Your task to perform on an android device: open chrome privacy settings Image 0: 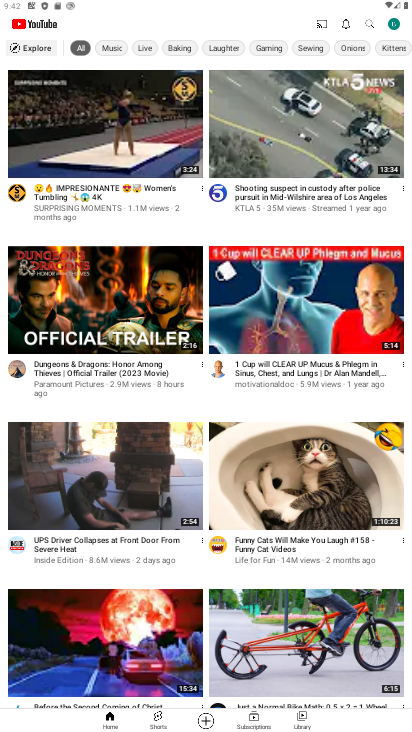
Step 0: drag from (220, 558) to (244, 396)
Your task to perform on an android device: open chrome privacy settings Image 1: 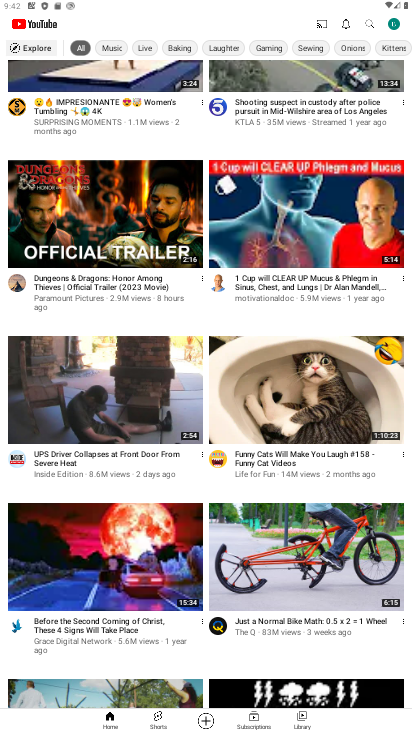
Step 1: press home button
Your task to perform on an android device: open chrome privacy settings Image 2: 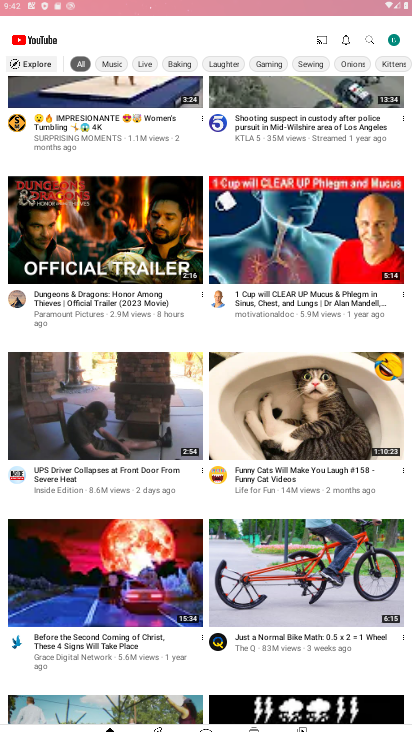
Step 2: drag from (223, 639) to (317, 85)
Your task to perform on an android device: open chrome privacy settings Image 3: 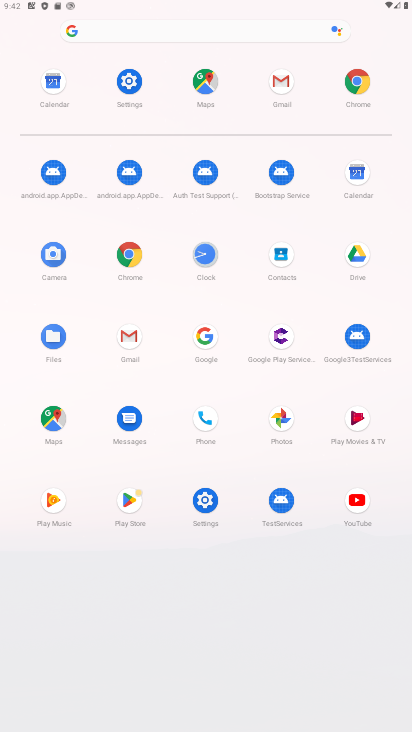
Step 3: click (127, 256)
Your task to perform on an android device: open chrome privacy settings Image 4: 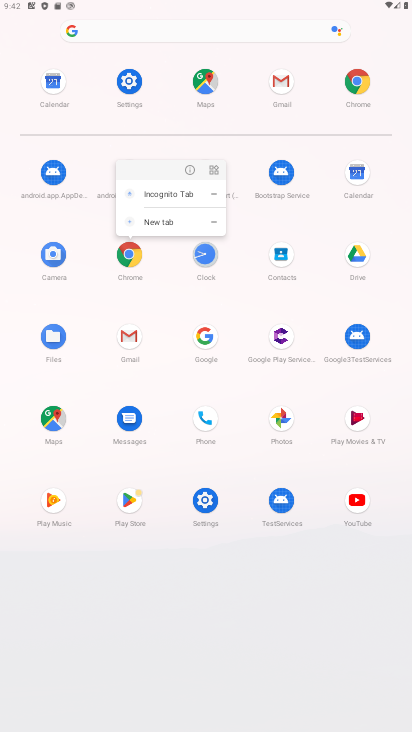
Step 4: click (185, 167)
Your task to perform on an android device: open chrome privacy settings Image 5: 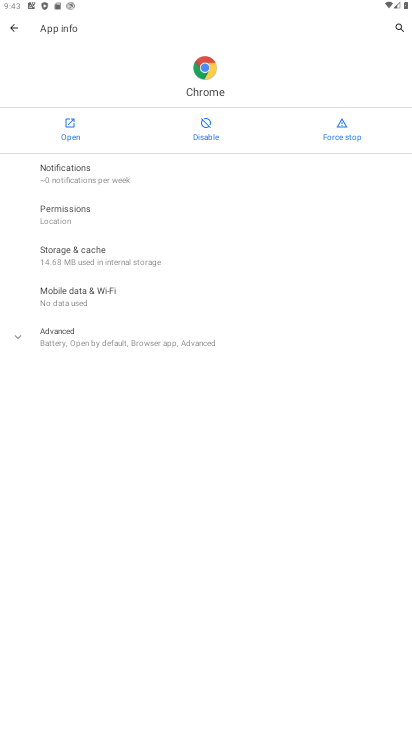
Step 5: click (70, 133)
Your task to perform on an android device: open chrome privacy settings Image 6: 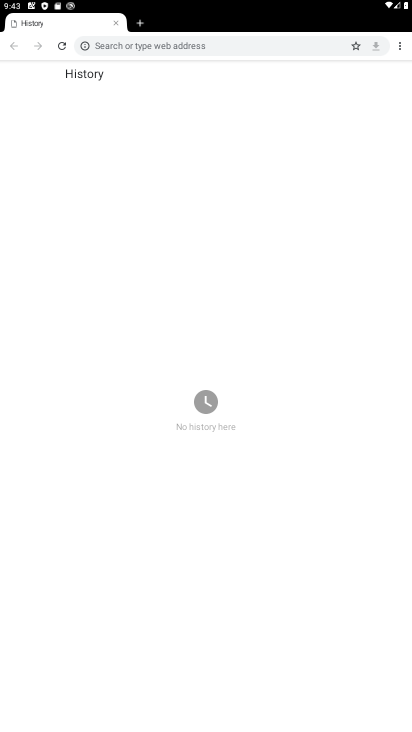
Step 6: drag from (203, 503) to (258, 145)
Your task to perform on an android device: open chrome privacy settings Image 7: 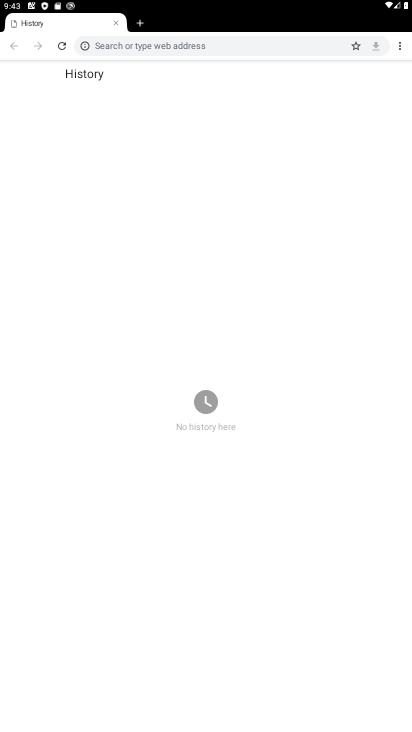
Step 7: drag from (233, 501) to (330, 174)
Your task to perform on an android device: open chrome privacy settings Image 8: 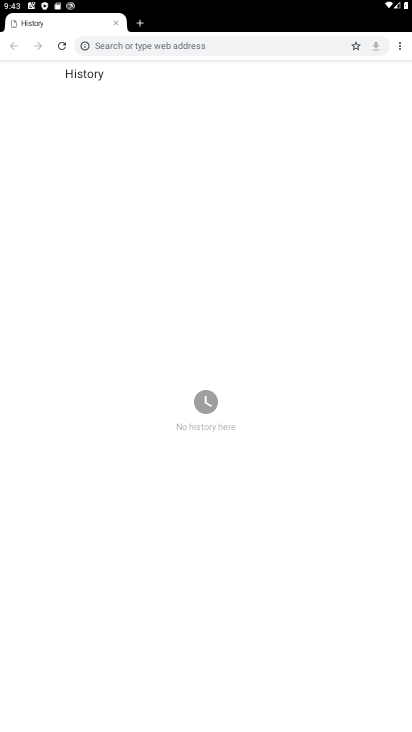
Step 8: drag from (400, 47) to (346, 235)
Your task to perform on an android device: open chrome privacy settings Image 9: 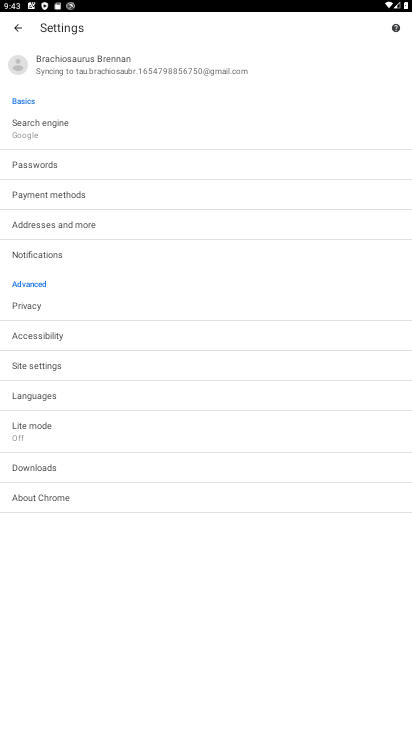
Step 9: click (90, 303)
Your task to perform on an android device: open chrome privacy settings Image 10: 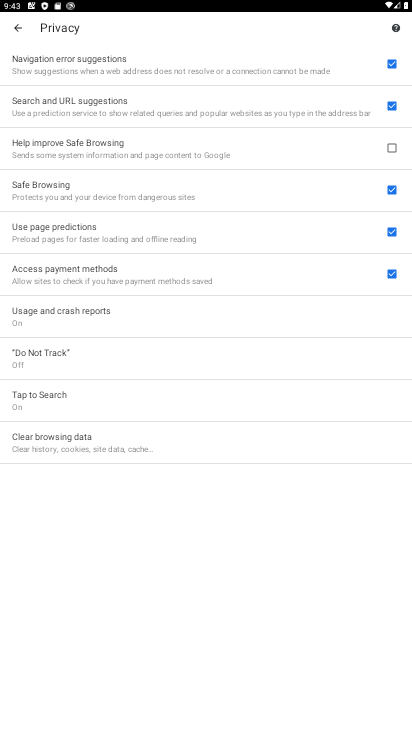
Step 10: task complete